Your task to perform on an android device: delete location history Image 0: 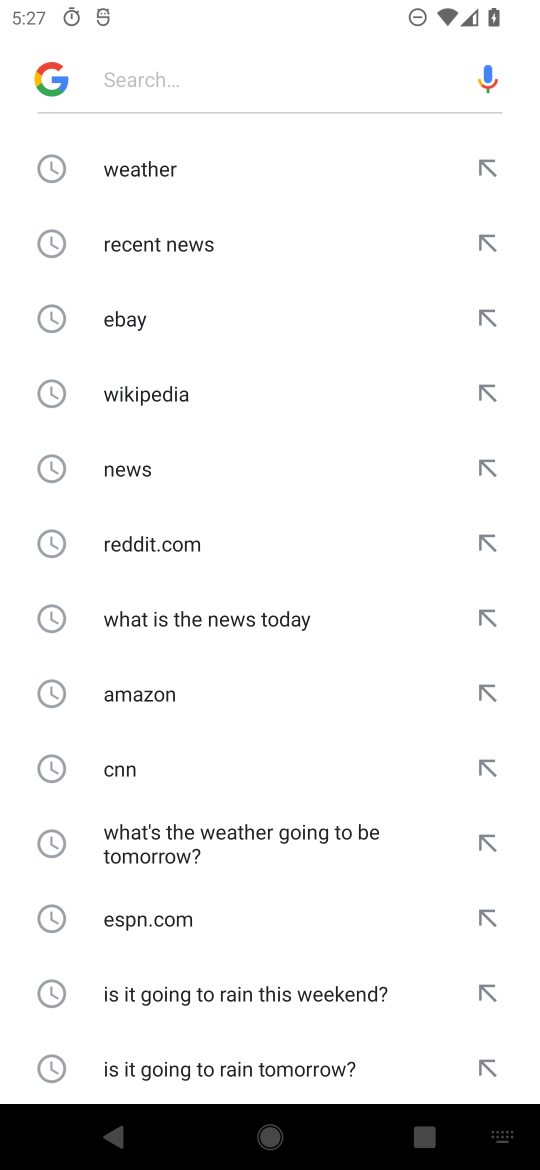
Step 0: press home button
Your task to perform on an android device: delete location history Image 1: 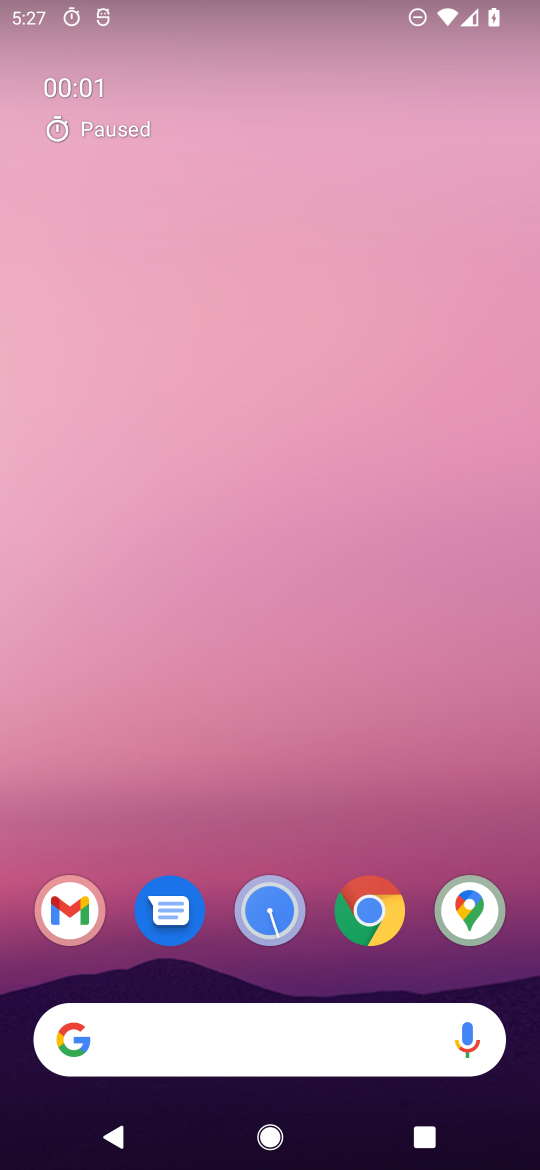
Step 1: drag from (54, 1103) to (312, 350)
Your task to perform on an android device: delete location history Image 2: 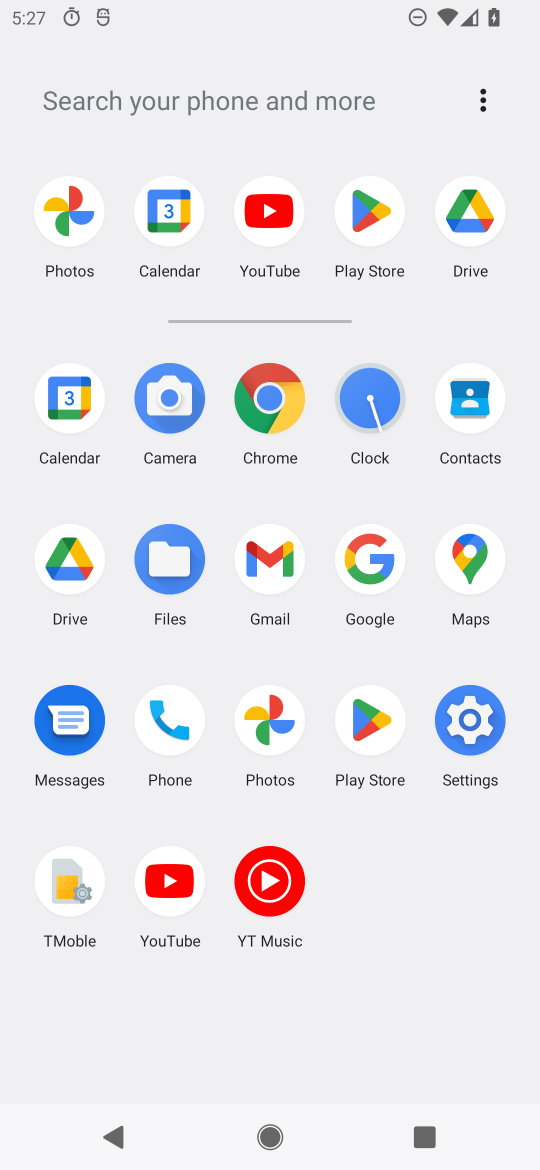
Step 2: click (460, 707)
Your task to perform on an android device: delete location history Image 3: 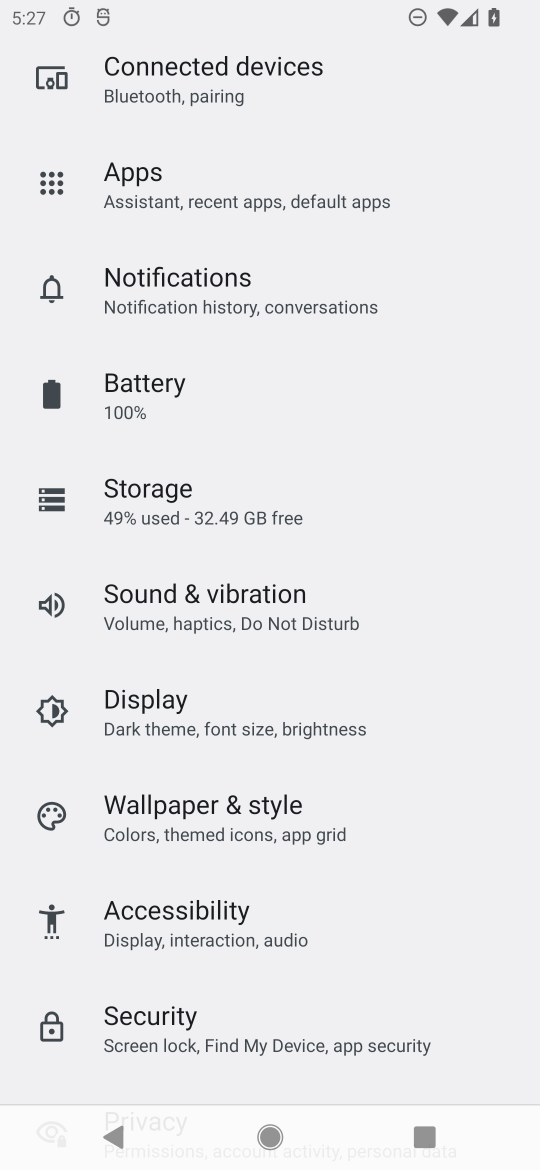
Step 3: drag from (317, 931) to (414, 451)
Your task to perform on an android device: delete location history Image 4: 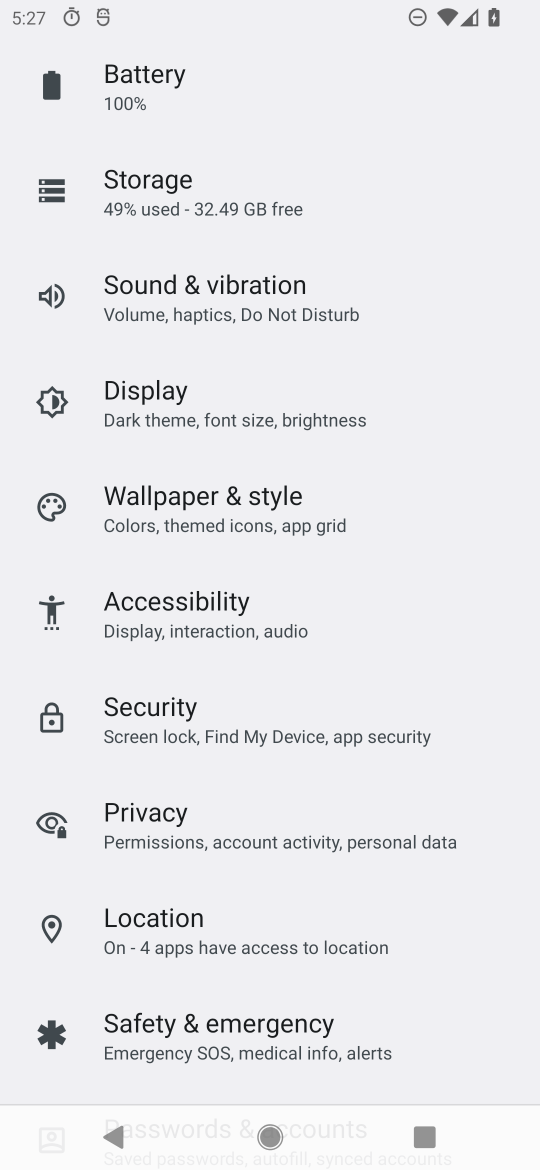
Step 4: click (165, 932)
Your task to perform on an android device: delete location history Image 5: 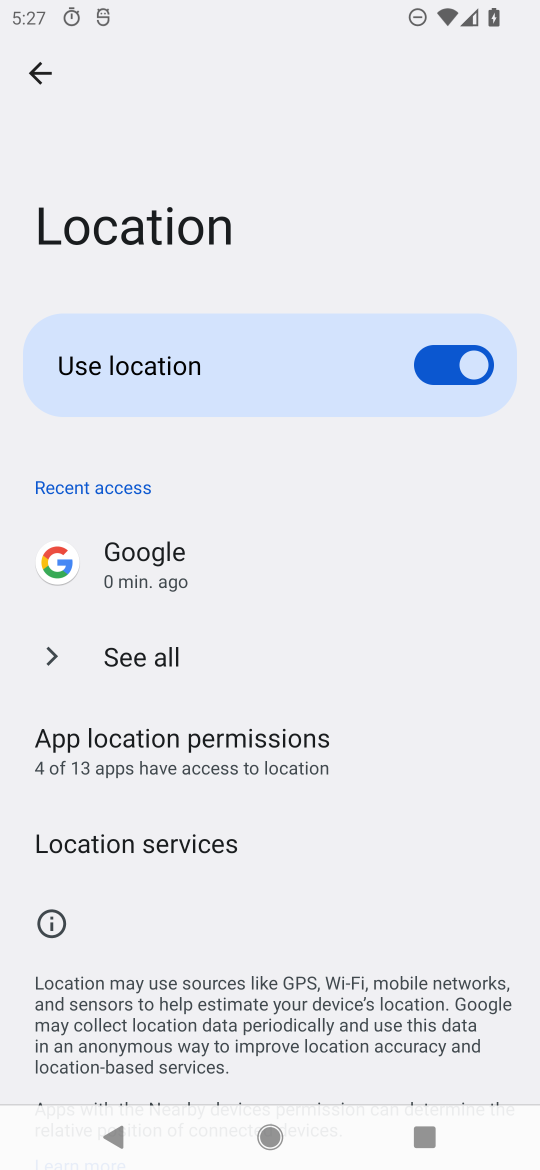
Step 5: click (74, 838)
Your task to perform on an android device: delete location history Image 6: 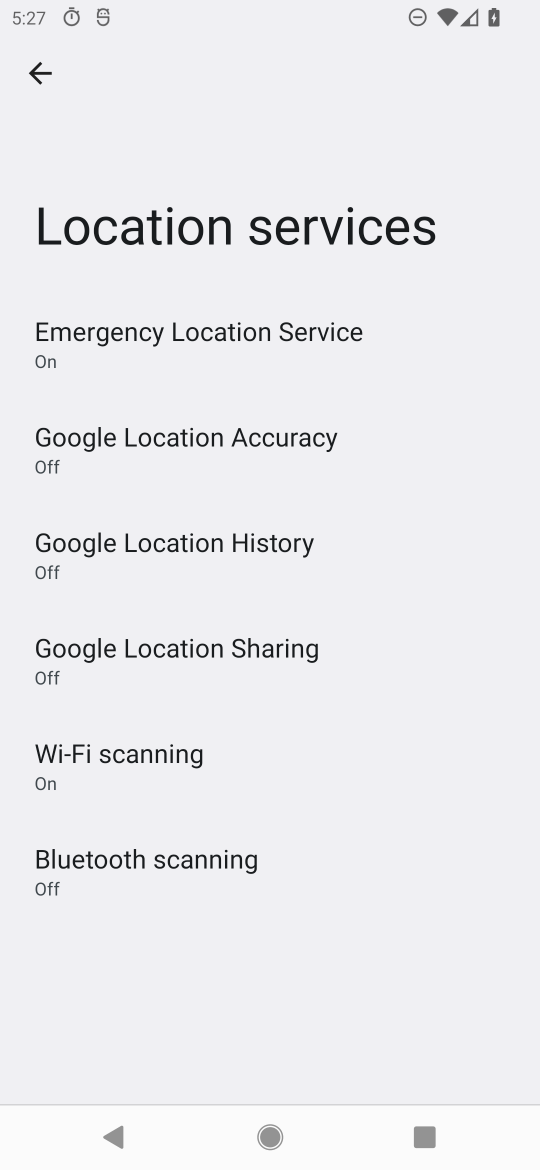
Step 6: click (180, 557)
Your task to perform on an android device: delete location history Image 7: 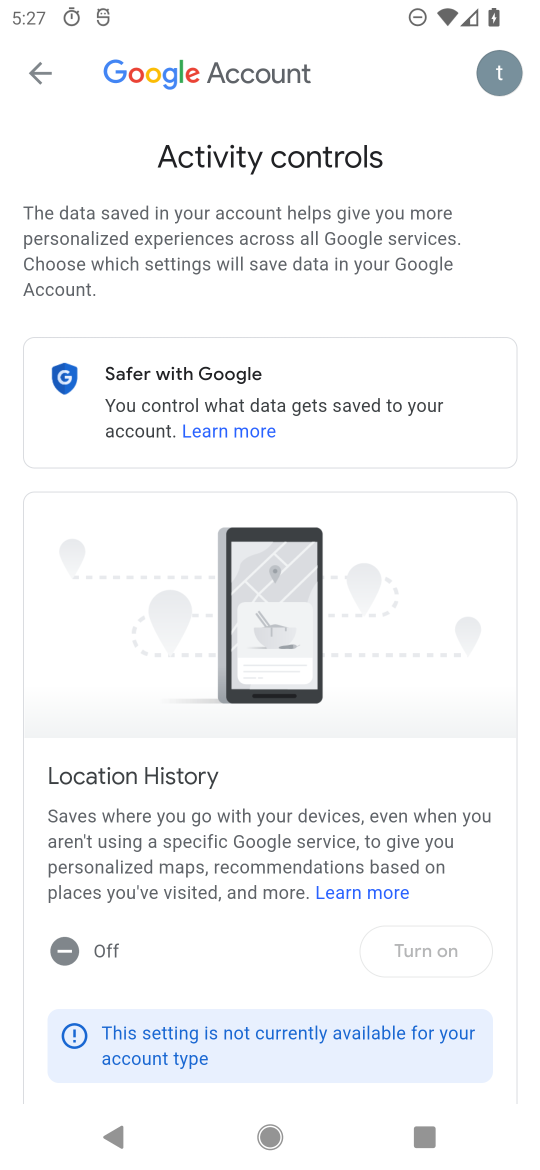
Step 7: drag from (183, 728) to (192, 392)
Your task to perform on an android device: delete location history Image 8: 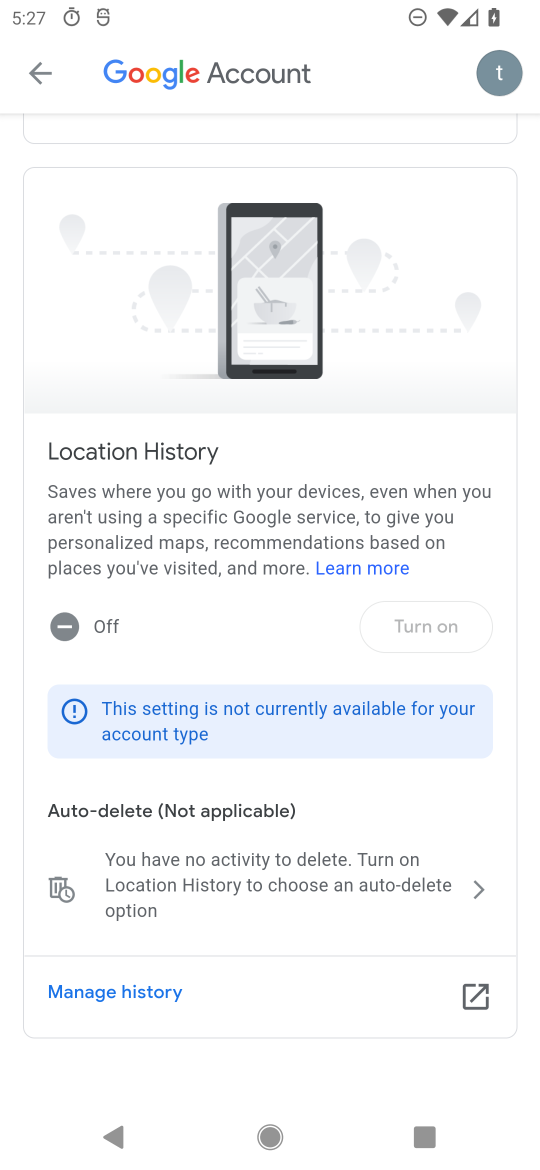
Step 8: click (236, 981)
Your task to perform on an android device: delete location history Image 9: 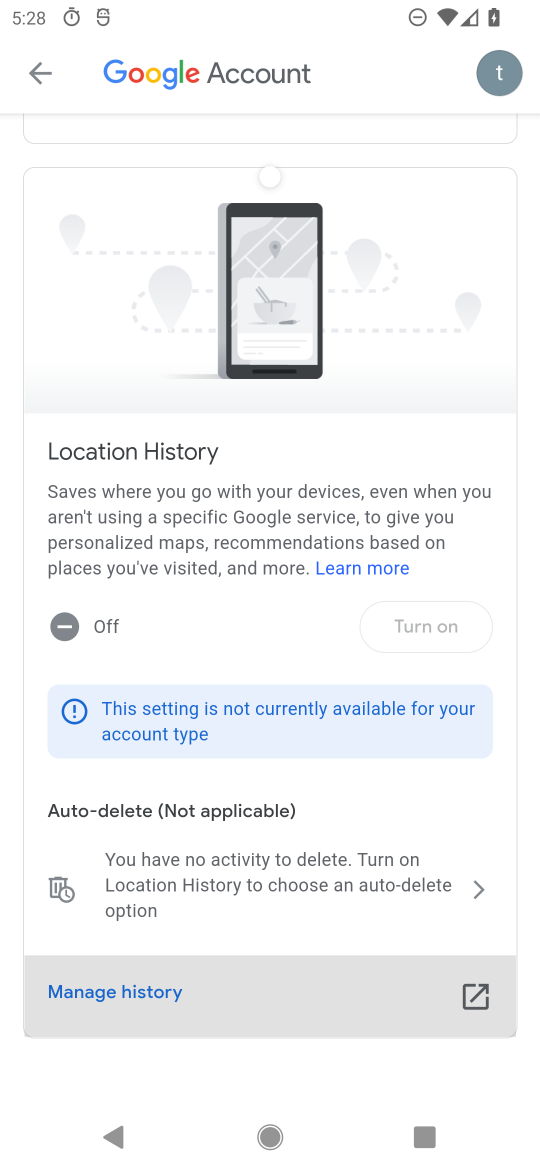
Step 9: click (97, 995)
Your task to perform on an android device: delete location history Image 10: 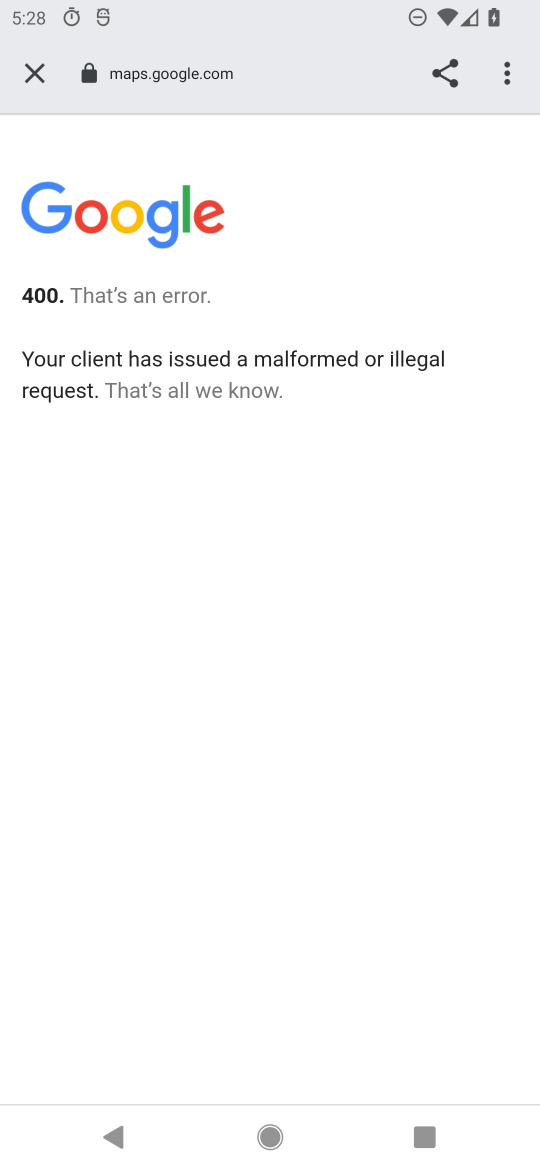
Step 10: task complete